Your task to perform on an android device: Open the calendar app, open the side menu, and click the "Day" option Image 0: 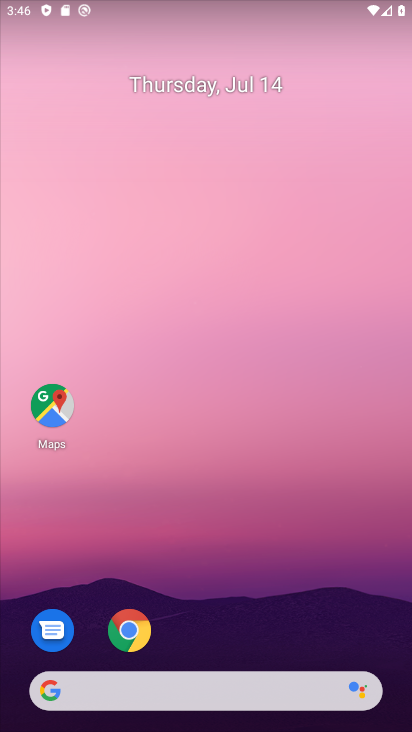
Step 0: drag from (283, 627) to (373, 160)
Your task to perform on an android device: Open the calendar app, open the side menu, and click the "Day" option Image 1: 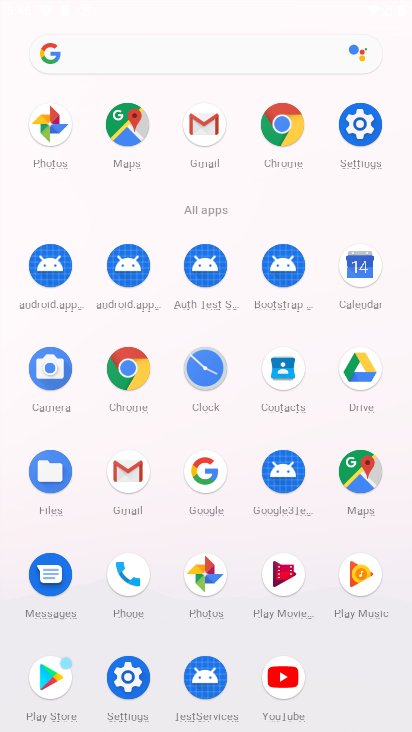
Step 1: click (345, 293)
Your task to perform on an android device: Open the calendar app, open the side menu, and click the "Day" option Image 2: 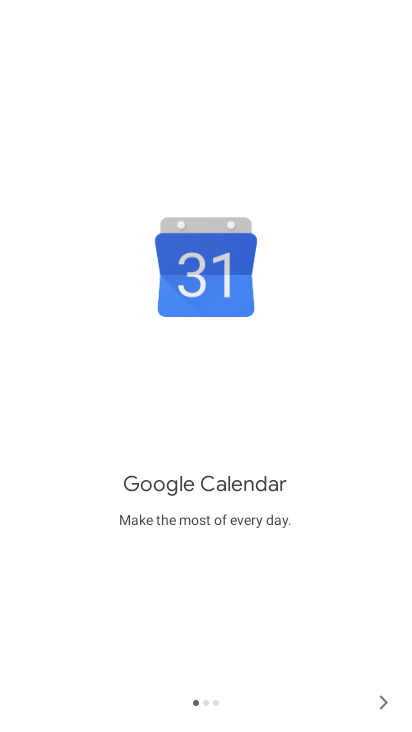
Step 2: click (382, 701)
Your task to perform on an android device: Open the calendar app, open the side menu, and click the "Day" option Image 3: 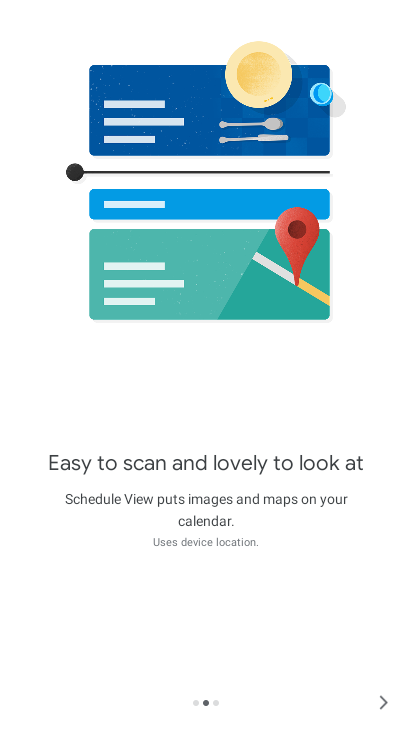
Step 3: click (377, 701)
Your task to perform on an android device: Open the calendar app, open the side menu, and click the "Day" option Image 4: 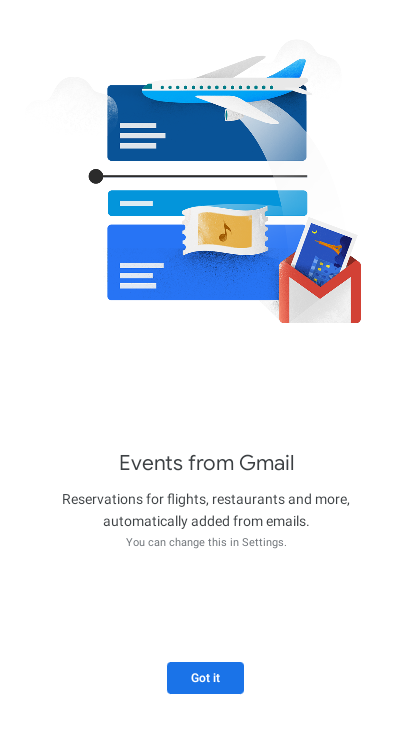
Step 4: click (225, 676)
Your task to perform on an android device: Open the calendar app, open the side menu, and click the "Day" option Image 5: 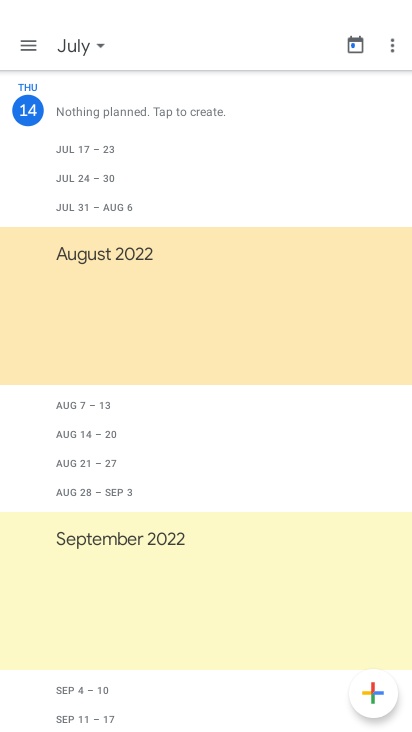
Step 5: click (26, 54)
Your task to perform on an android device: Open the calendar app, open the side menu, and click the "Day" option Image 6: 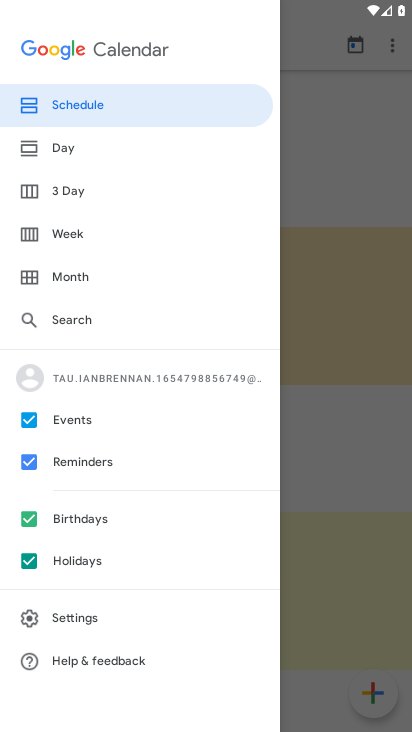
Step 6: click (75, 152)
Your task to perform on an android device: Open the calendar app, open the side menu, and click the "Day" option Image 7: 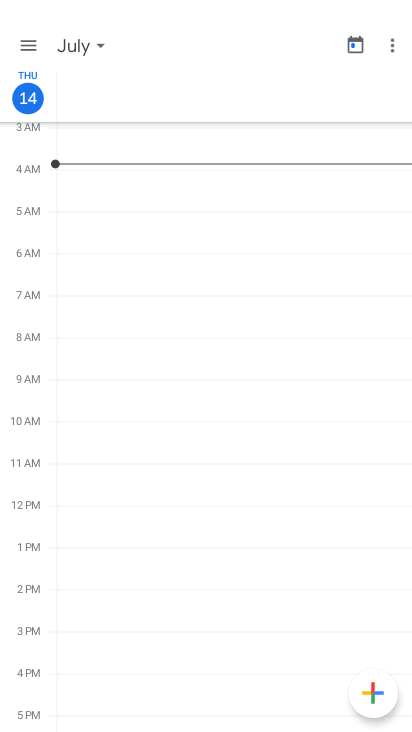
Step 7: task complete